Your task to perform on an android device: Show me recent news Image 0: 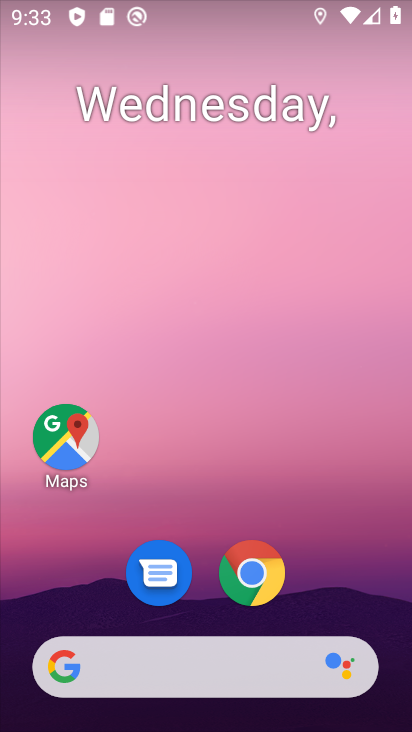
Step 0: drag from (360, 599) to (309, 87)
Your task to perform on an android device: Show me recent news Image 1: 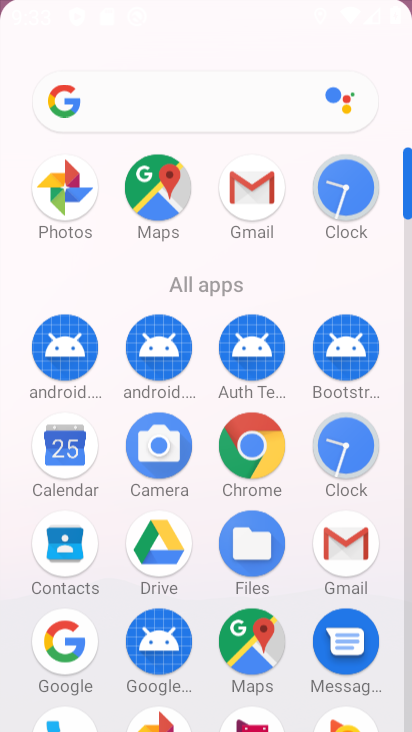
Step 1: task complete